Your task to perform on an android device: Open settings Image 0: 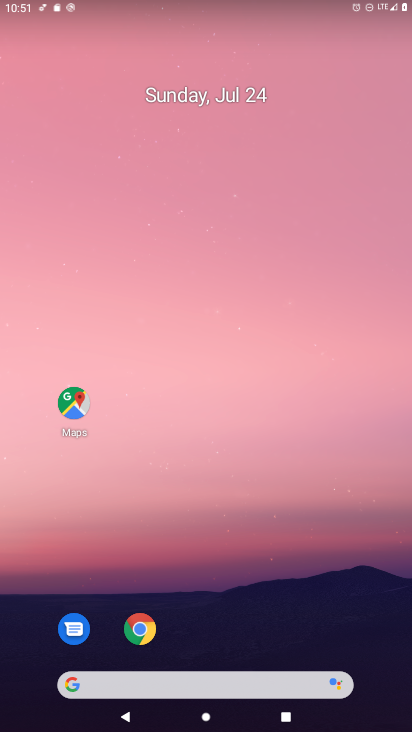
Step 0: drag from (364, 611) to (144, 54)
Your task to perform on an android device: Open settings Image 1: 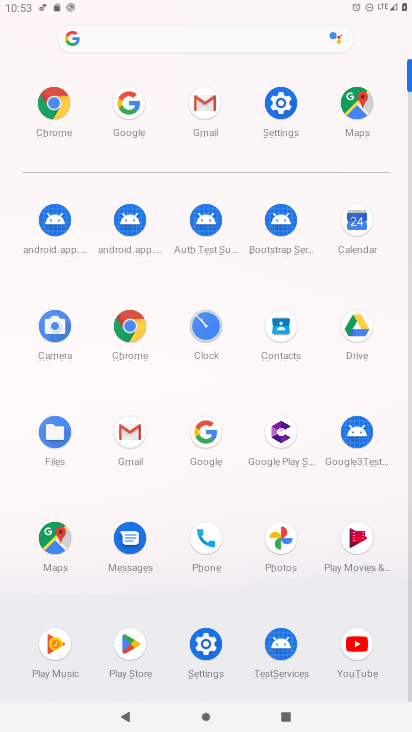
Step 1: click (218, 636)
Your task to perform on an android device: Open settings Image 2: 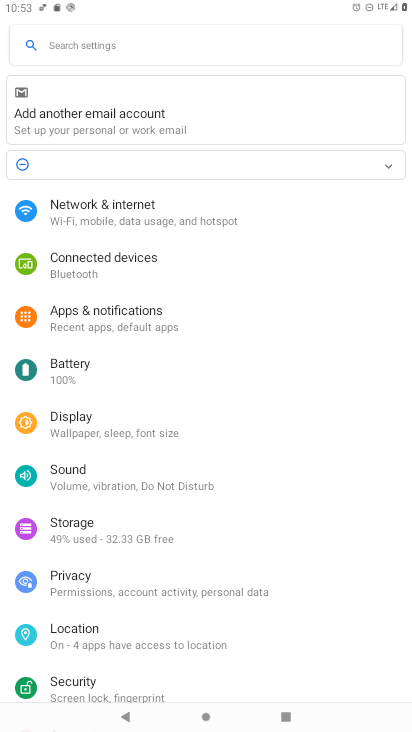
Step 2: task complete